Your task to perform on an android device: Show me the alarms in the clock app Image 0: 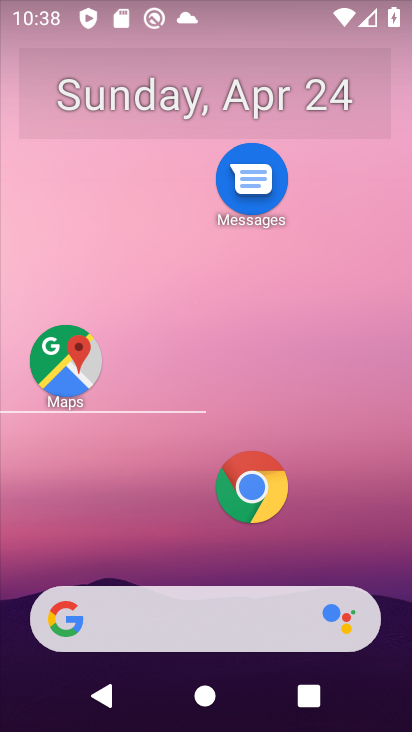
Step 0: click (252, 8)
Your task to perform on an android device: Show me the alarms in the clock app Image 1: 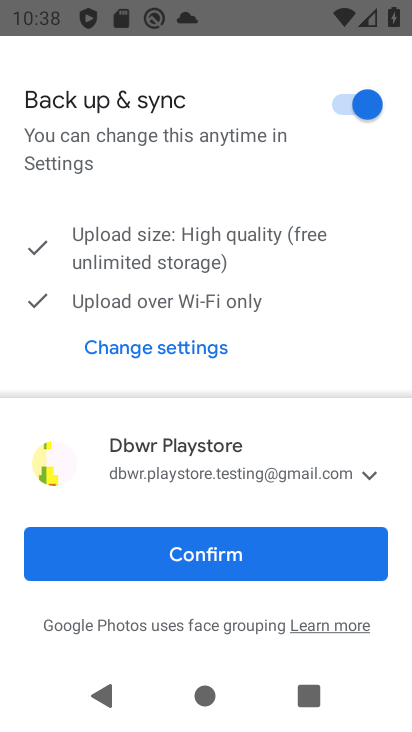
Step 1: press home button
Your task to perform on an android device: Show me the alarms in the clock app Image 2: 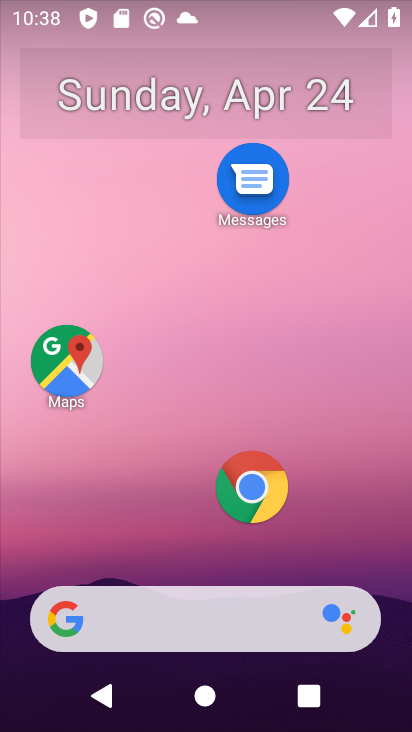
Step 2: drag from (154, 551) to (377, 1)
Your task to perform on an android device: Show me the alarms in the clock app Image 3: 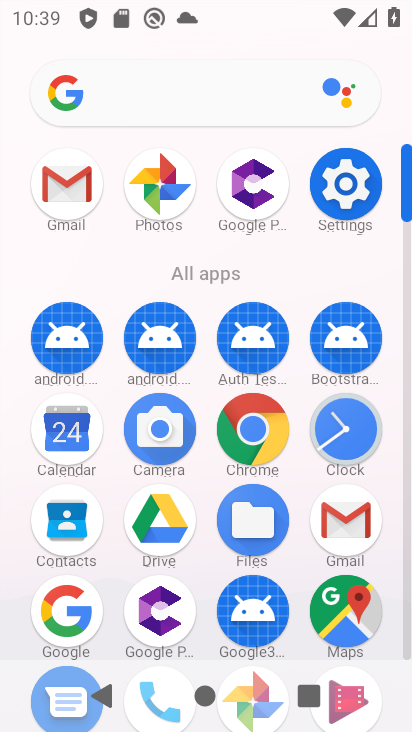
Step 3: click (338, 428)
Your task to perform on an android device: Show me the alarms in the clock app Image 4: 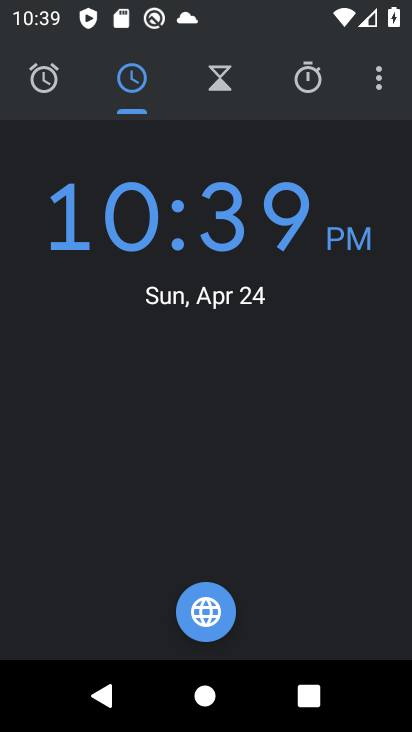
Step 4: click (47, 94)
Your task to perform on an android device: Show me the alarms in the clock app Image 5: 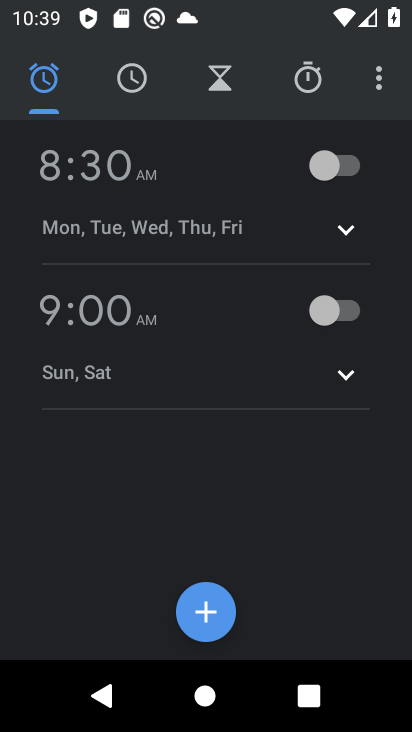
Step 5: task complete